Your task to perform on an android device: allow cookies in the chrome app Image 0: 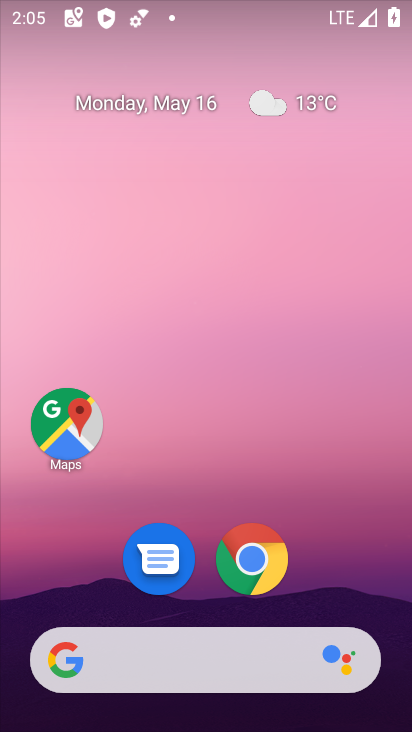
Step 0: click (254, 554)
Your task to perform on an android device: allow cookies in the chrome app Image 1: 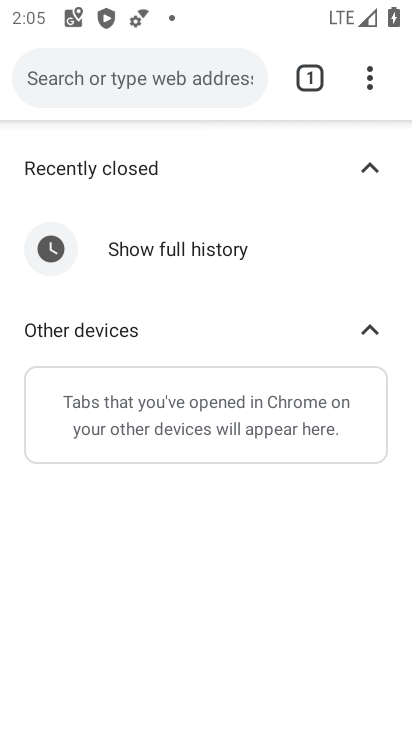
Step 1: click (366, 63)
Your task to perform on an android device: allow cookies in the chrome app Image 2: 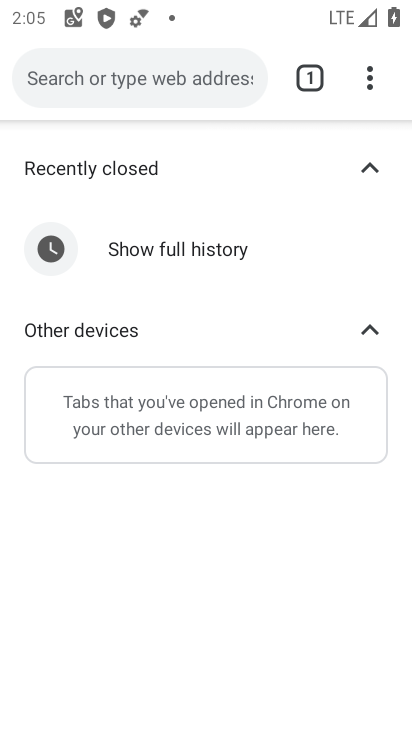
Step 2: click (370, 70)
Your task to perform on an android device: allow cookies in the chrome app Image 3: 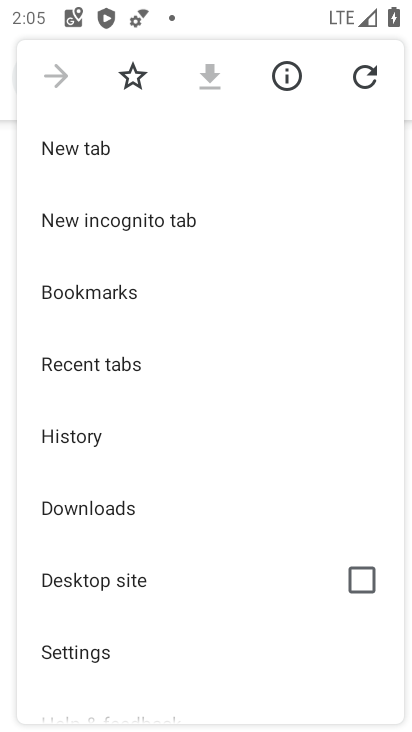
Step 3: click (98, 644)
Your task to perform on an android device: allow cookies in the chrome app Image 4: 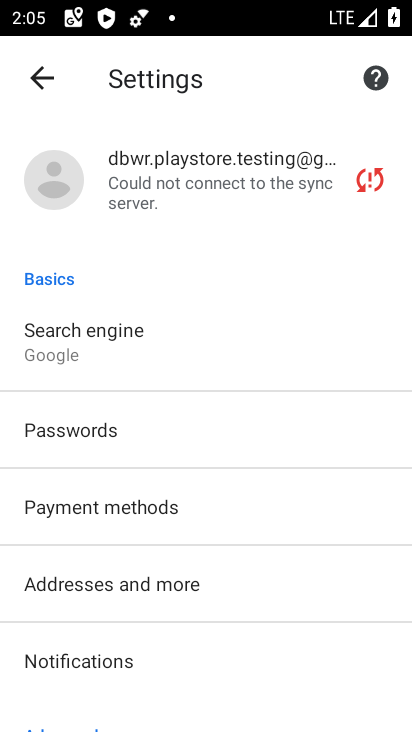
Step 4: drag from (110, 643) to (183, 185)
Your task to perform on an android device: allow cookies in the chrome app Image 5: 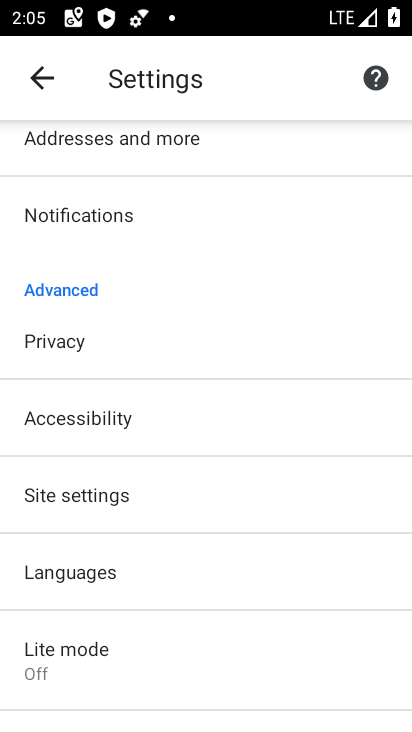
Step 5: click (56, 496)
Your task to perform on an android device: allow cookies in the chrome app Image 6: 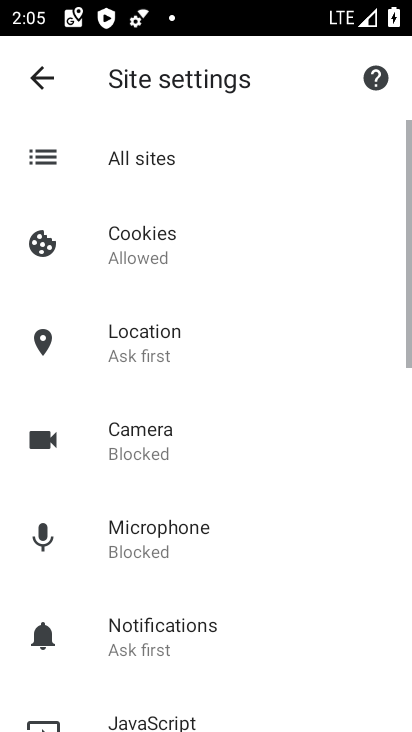
Step 6: click (170, 250)
Your task to perform on an android device: allow cookies in the chrome app Image 7: 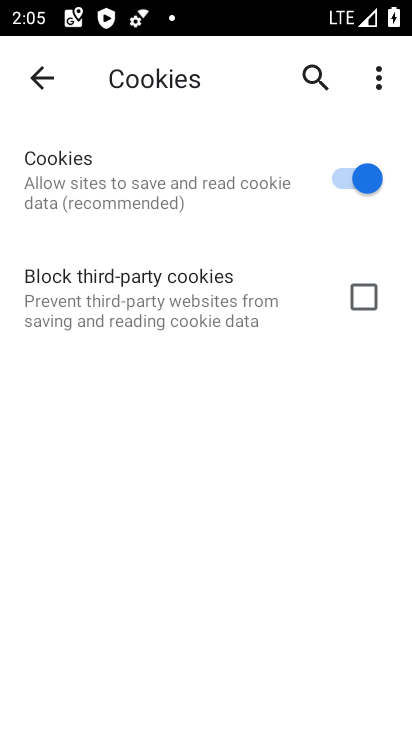
Step 7: task complete